Your task to perform on an android device: open sync settings in chrome Image 0: 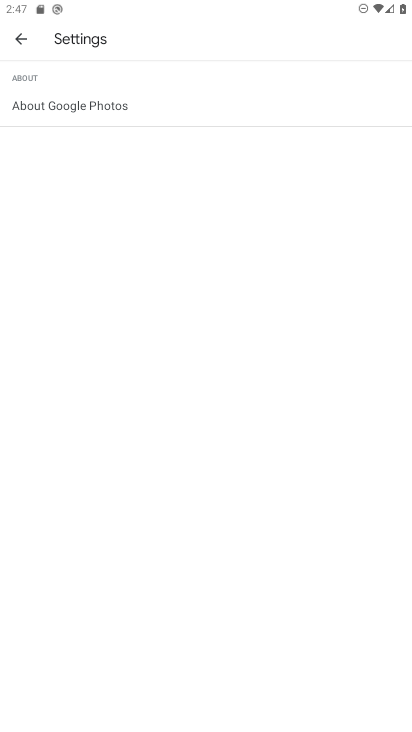
Step 0: press home button
Your task to perform on an android device: open sync settings in chrome Image 1: 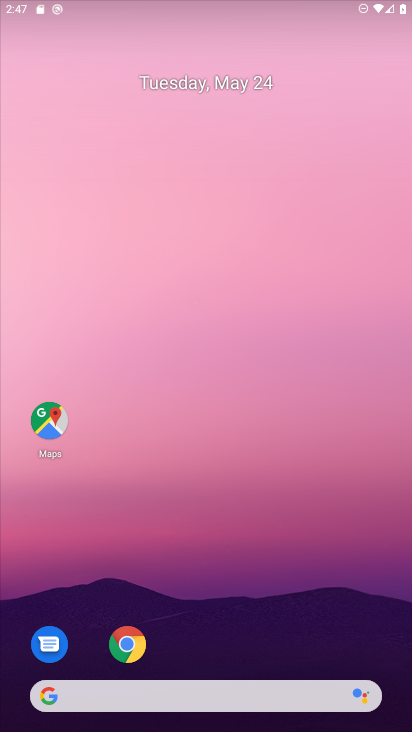
Step 1: drag from (316, 622) to (314, 172)
Your task to perform on an android device: open sync settings in chrome Image 2: 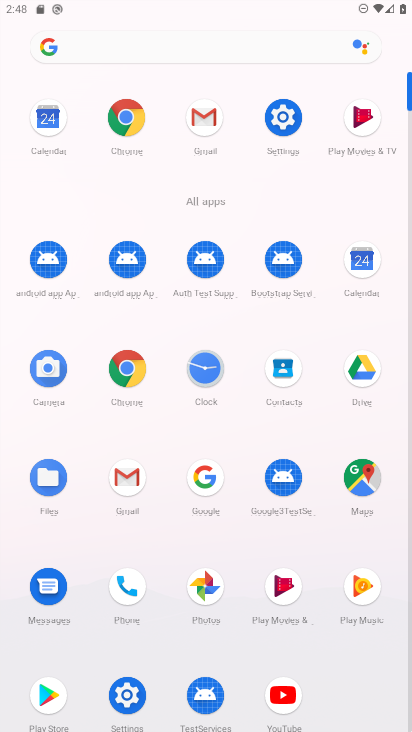
Step 2: click (130, 376)
Your task to perform on an android device: open sync settings in chrome Image 3: 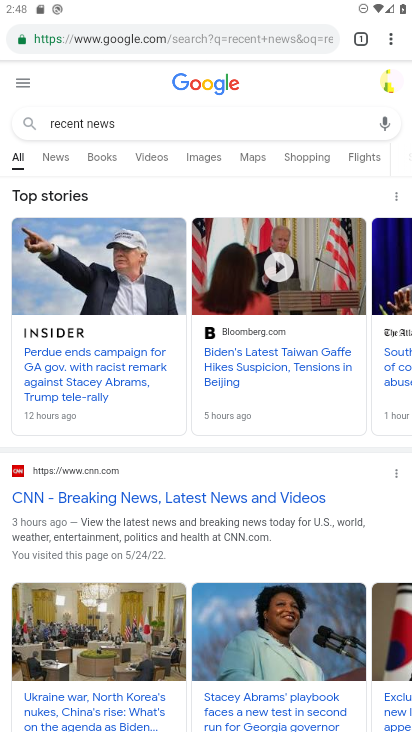
Step 3: drag from (411, 35) to (246, 438)
Your task to perform on an android device: open sync settings in chrome Image 4: 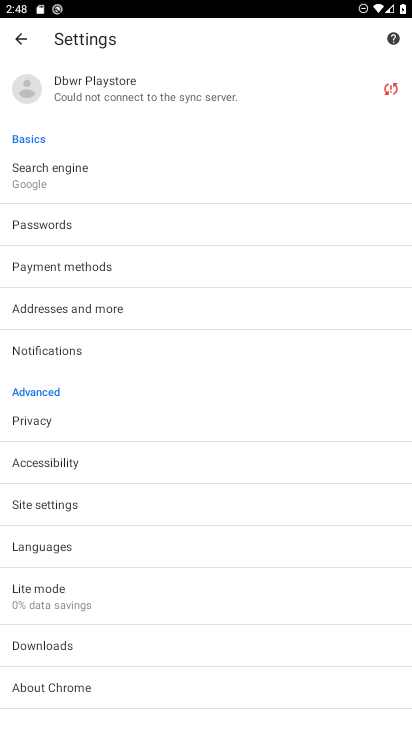
Step 4: drag from (173, 598) to (220, 298)
Your task to perform on an android device: open sync settings in chrome Image 5: 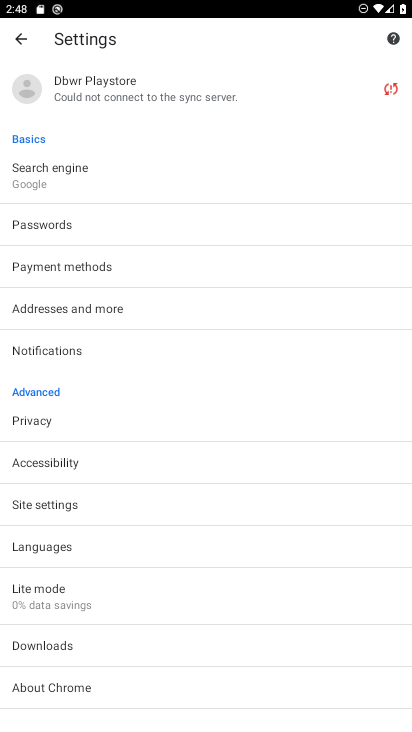
Step 5: click (98, 508)
Your task to perform on an android device: open sync settings in chrome Image 6: 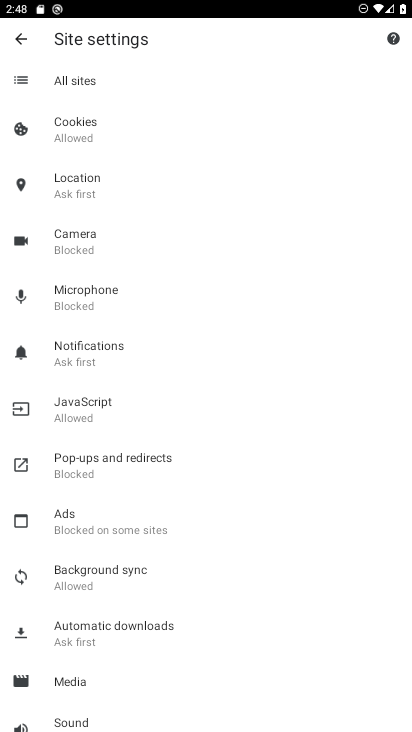
Step 6: click (122, 573)
Your task to perform on an android device: open sync settings in chrome Image 7: 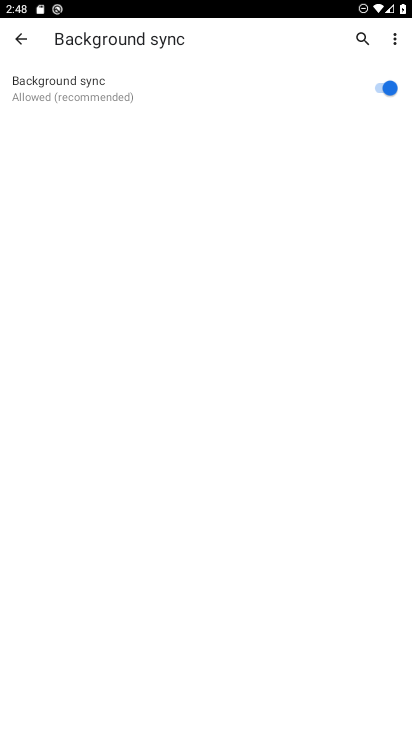
Step 7: task complete